Your task to perform on an android device: What's the news in Puerto Rico? Image 0: 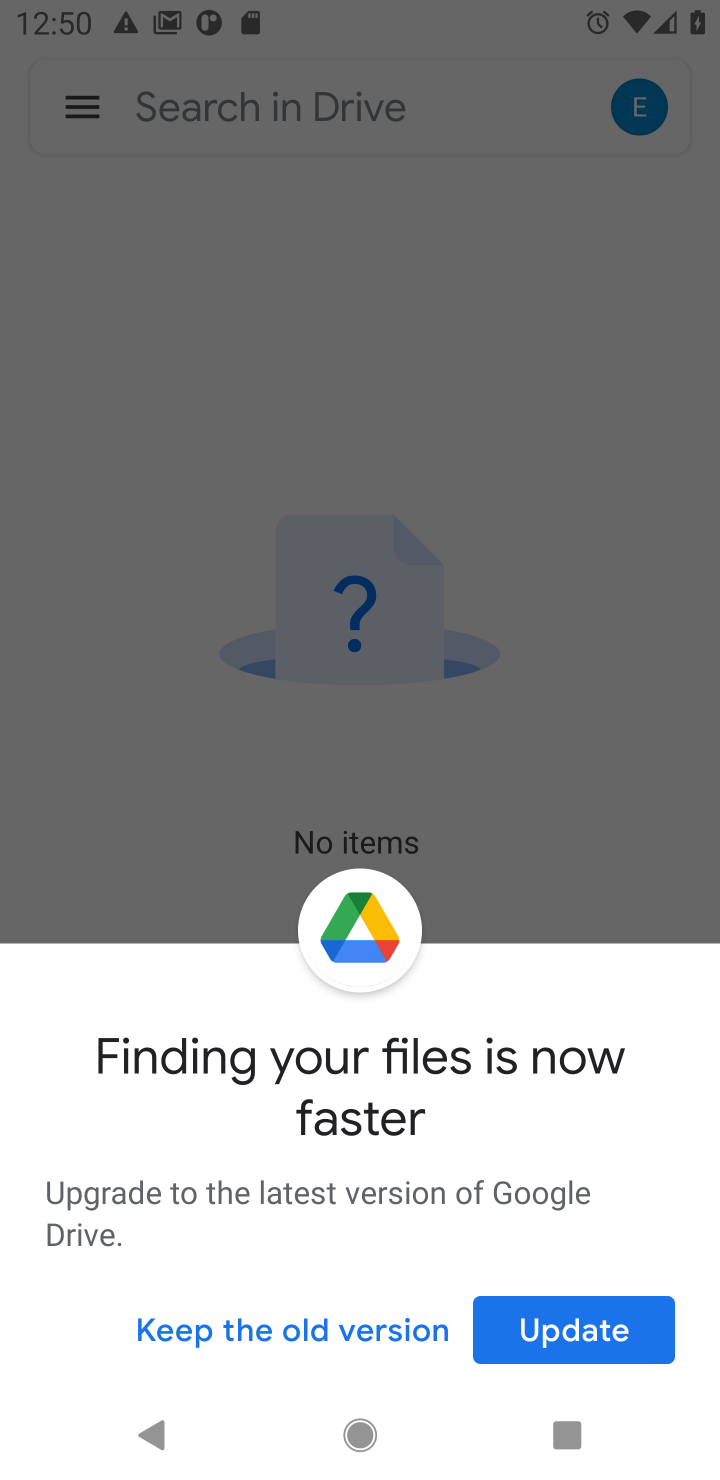
Step 0: press home button
Your task to perform on an android device: What's the news in Puerto Rico? Image 1: 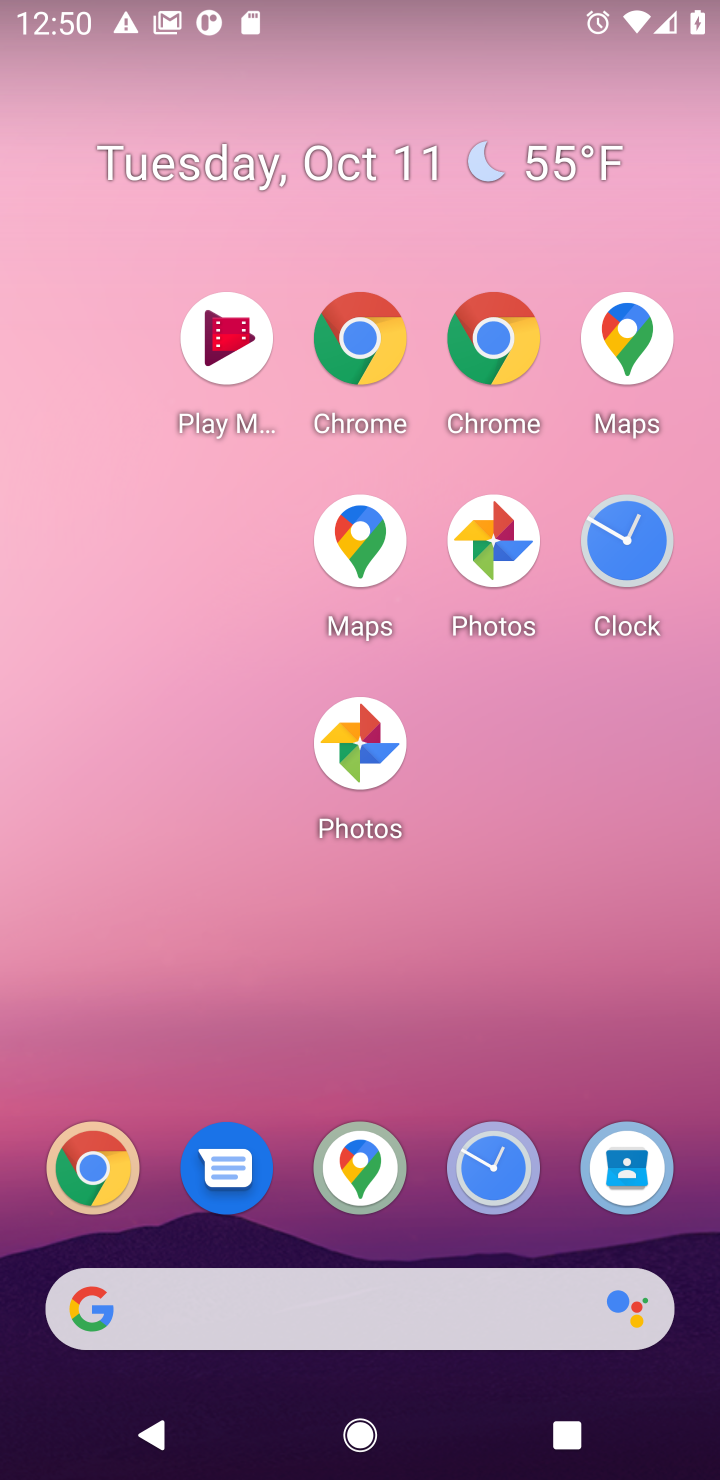
Step 1: drag from (427, 985) to (558, 456)
Your task to perform on an android device: What's the news in Puerto Rico? Image 2: 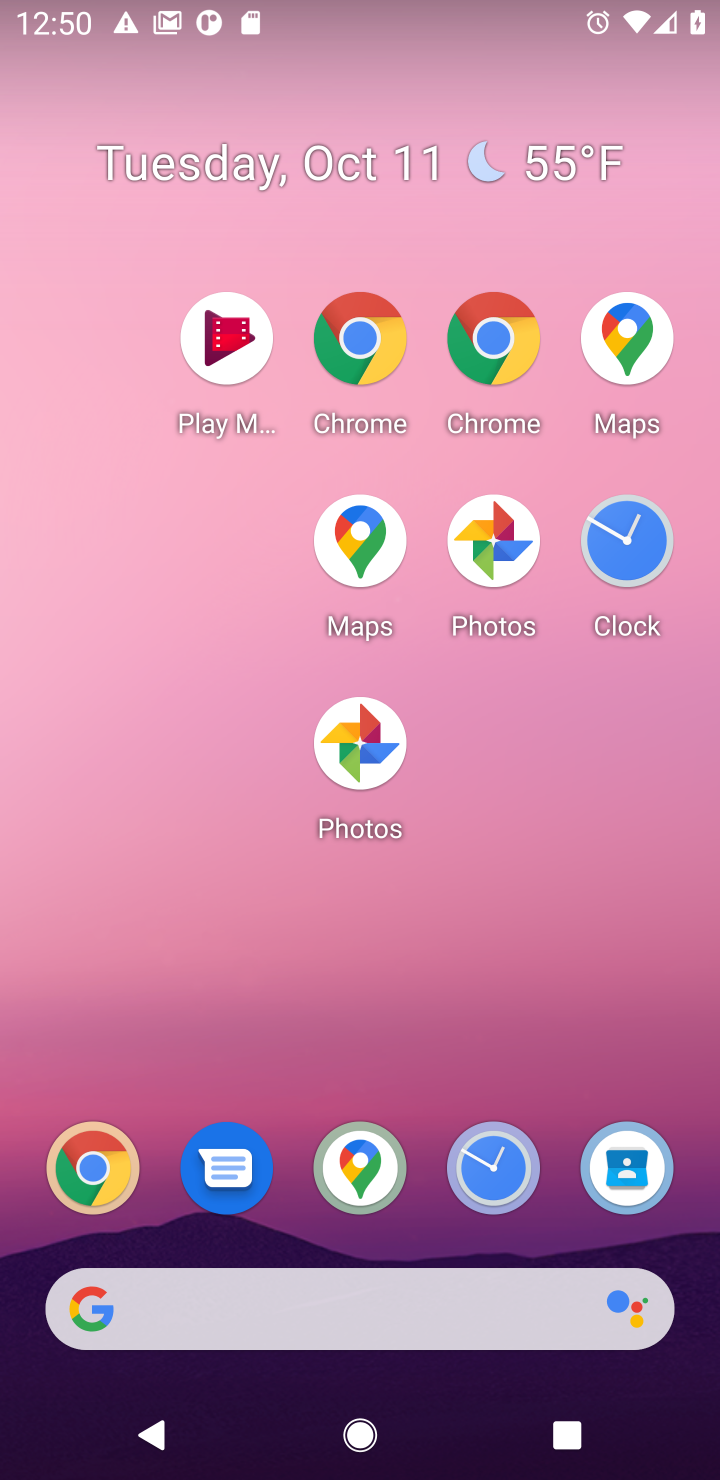
Step 2: drag from (464, 203) to (552, 4)
Your task to perform on an android device: What's the news in Puerto Rico? Image 3: 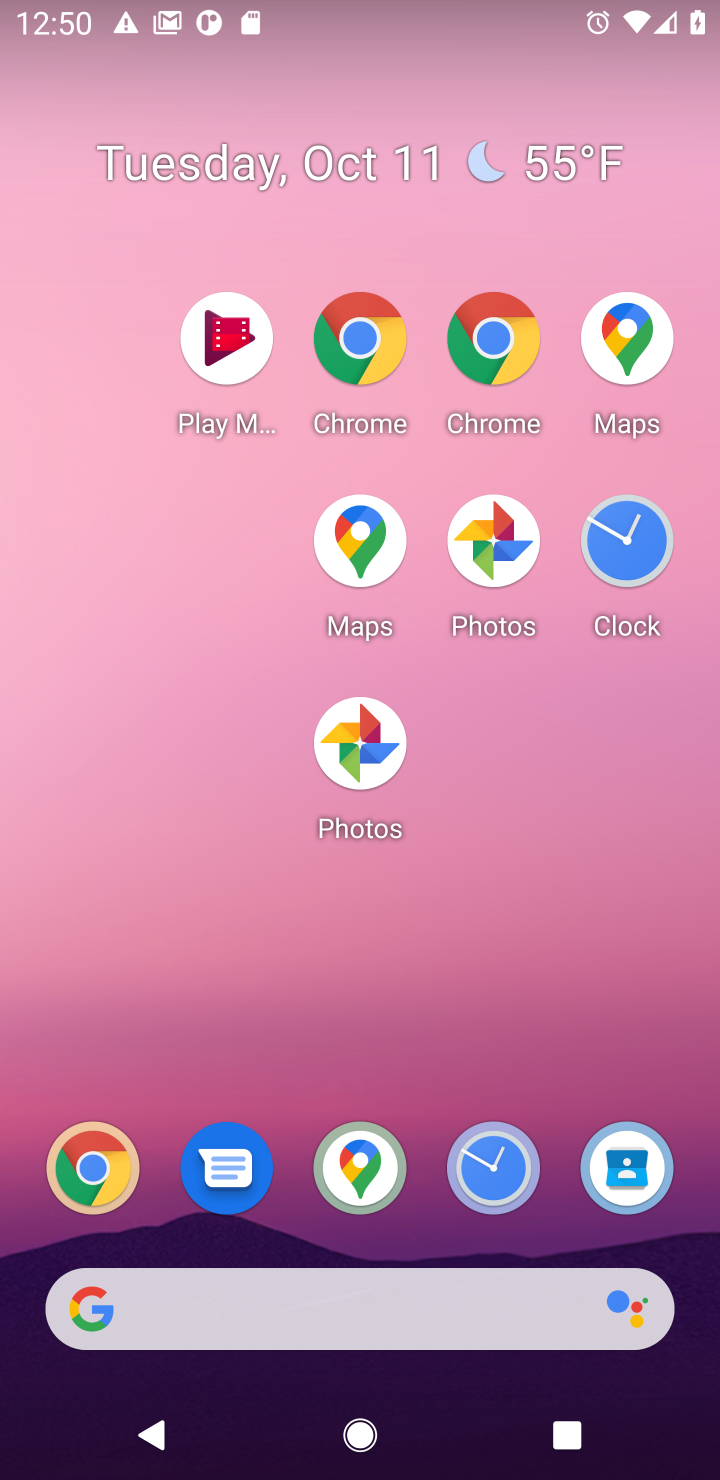
Step 3: drag from (398, 1082) to (489, 327)
Your task to perform on an android device: What's the news in Puerto Rico? Image 4: 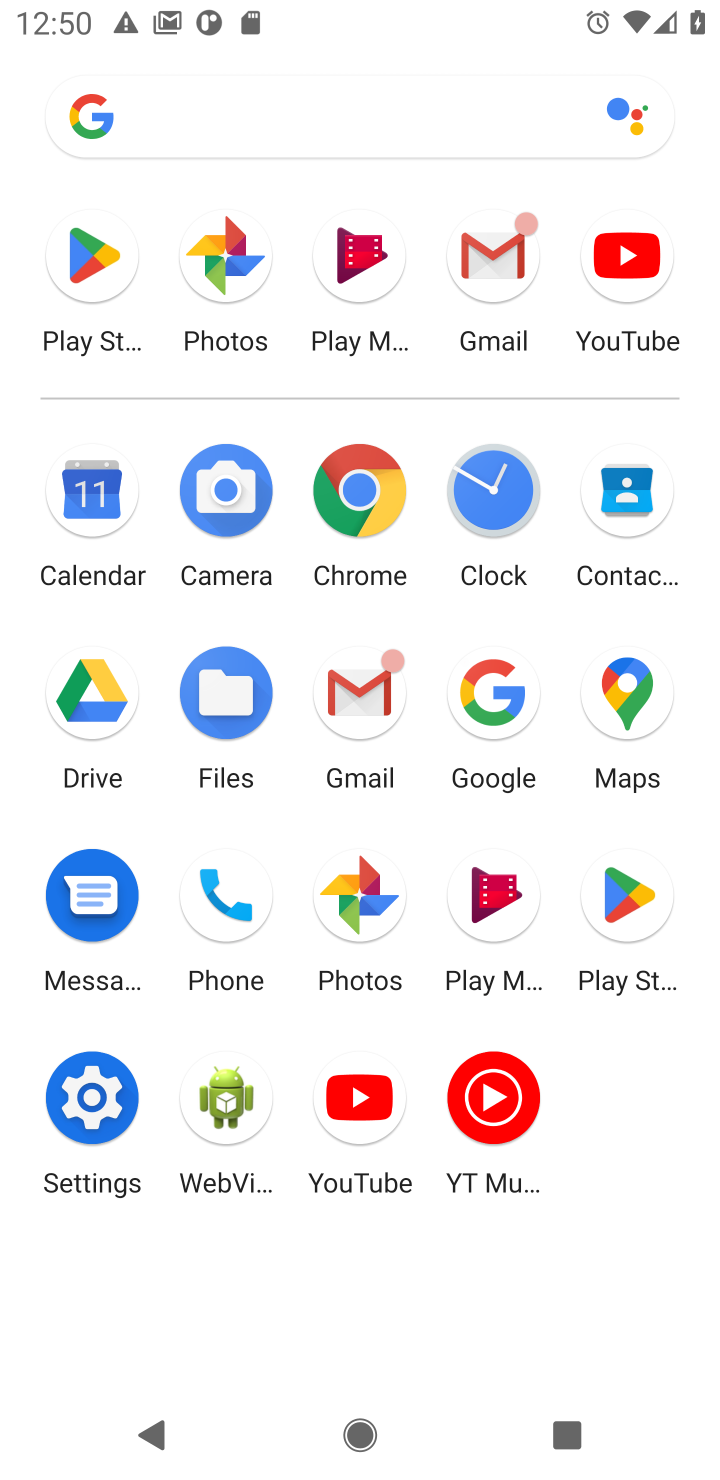
Step 4: click (494, 680)
Your task to perform on an android device: What's the news in Puerto Rico? Image 5: 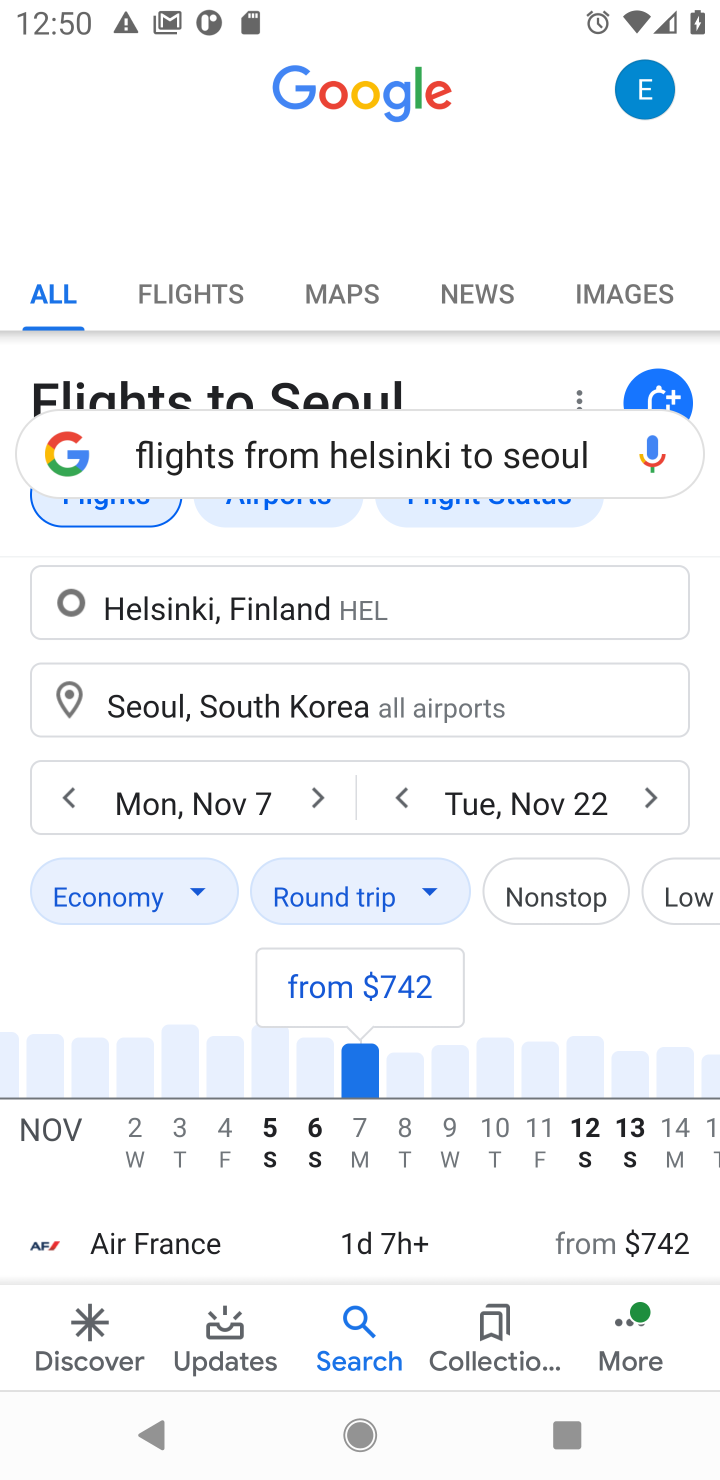
Step 5: click (474, 457)
Your task to perform on an android device: What's the news in Puerto Rico? Image 6: 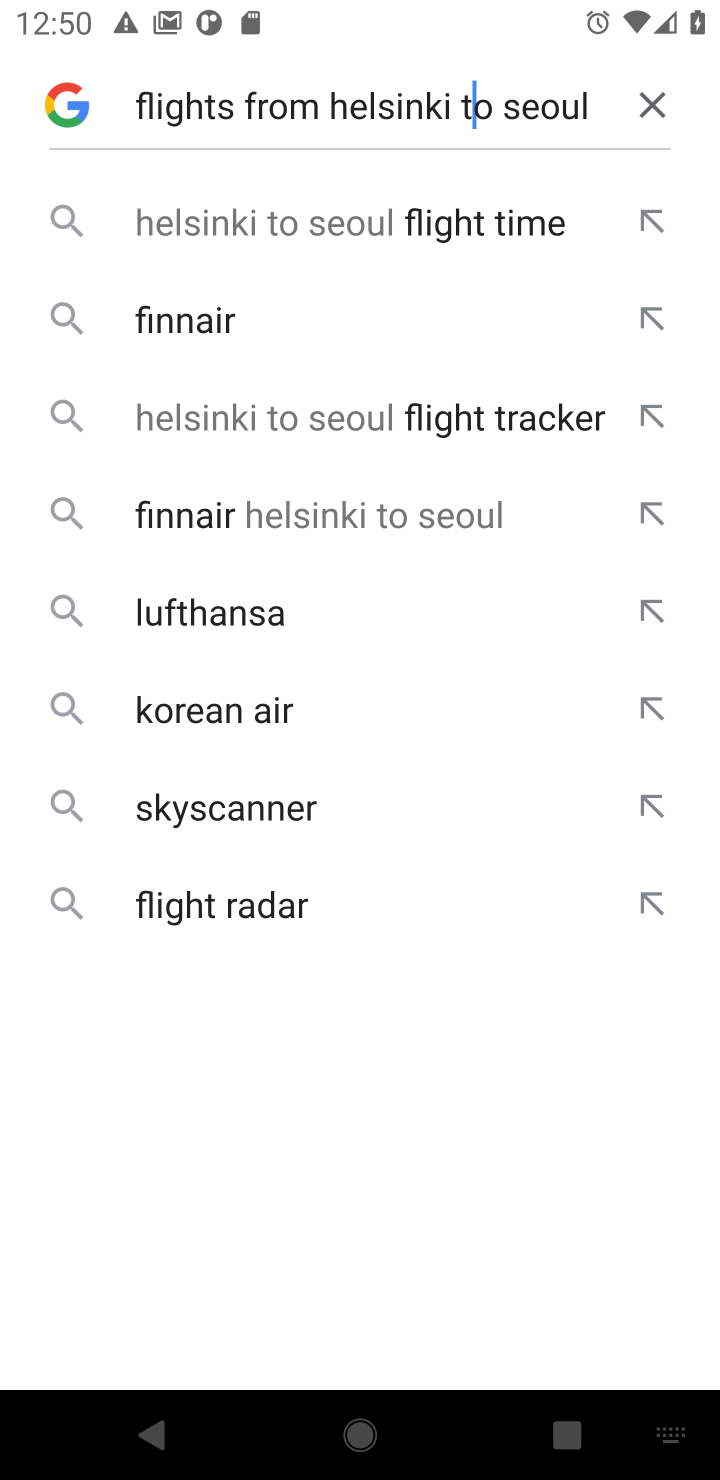
Step 6: click (656, 113)
Your task to perform on an android device: What's the news in Puerto Rico? Image 7: 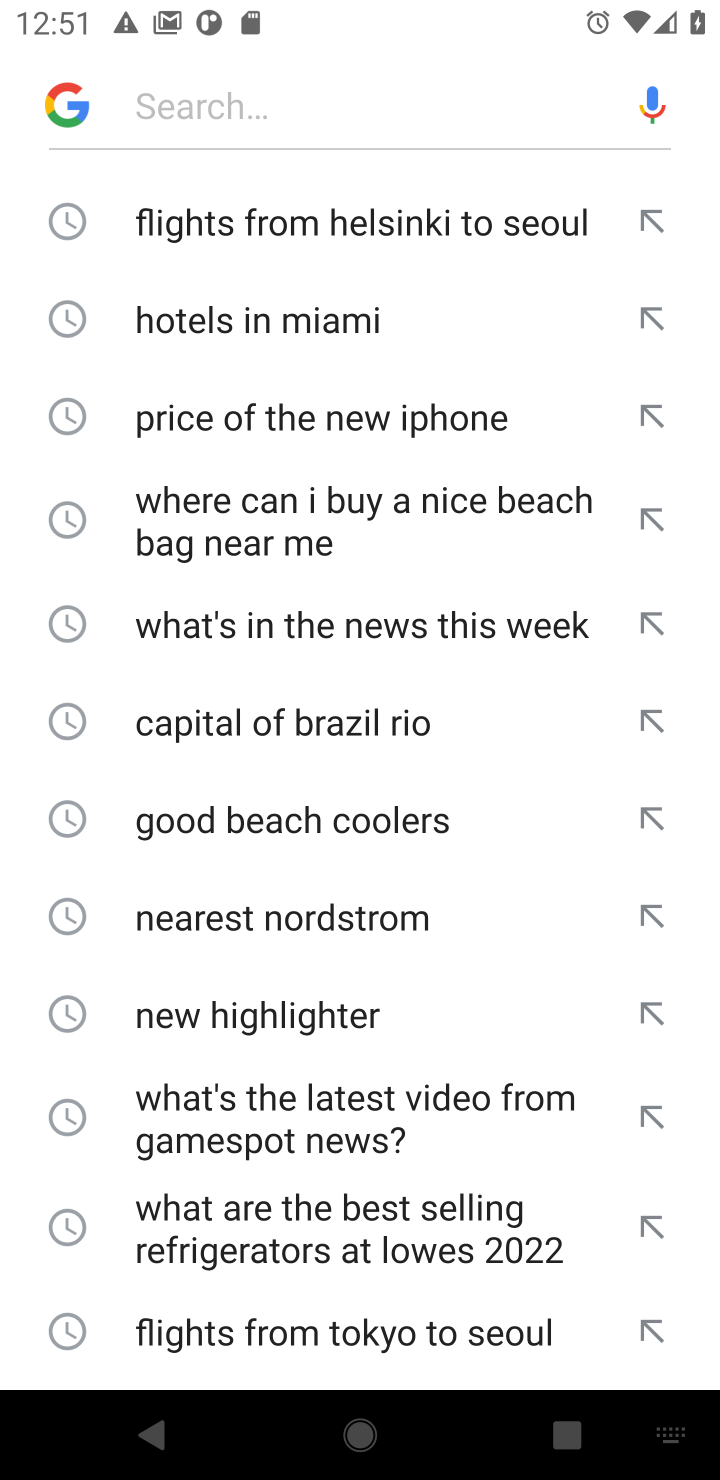
Step 7: type "news in Puerto Rico"
Your task to perform on an android device: What's the news in Puerto Rico? Image 8: 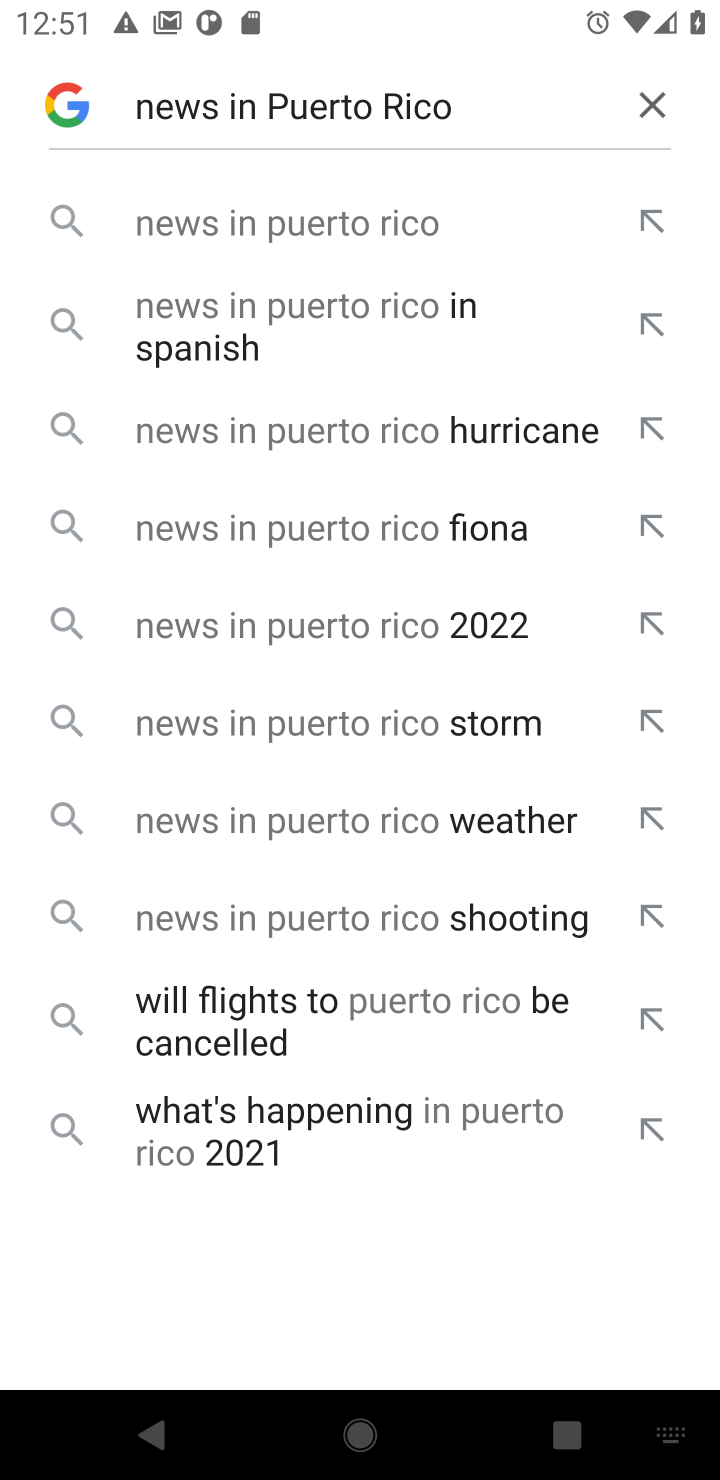
Step 8: click (331, 229)
Your task to perform on an android device: What's the news in Puerto Rico? Image 9: 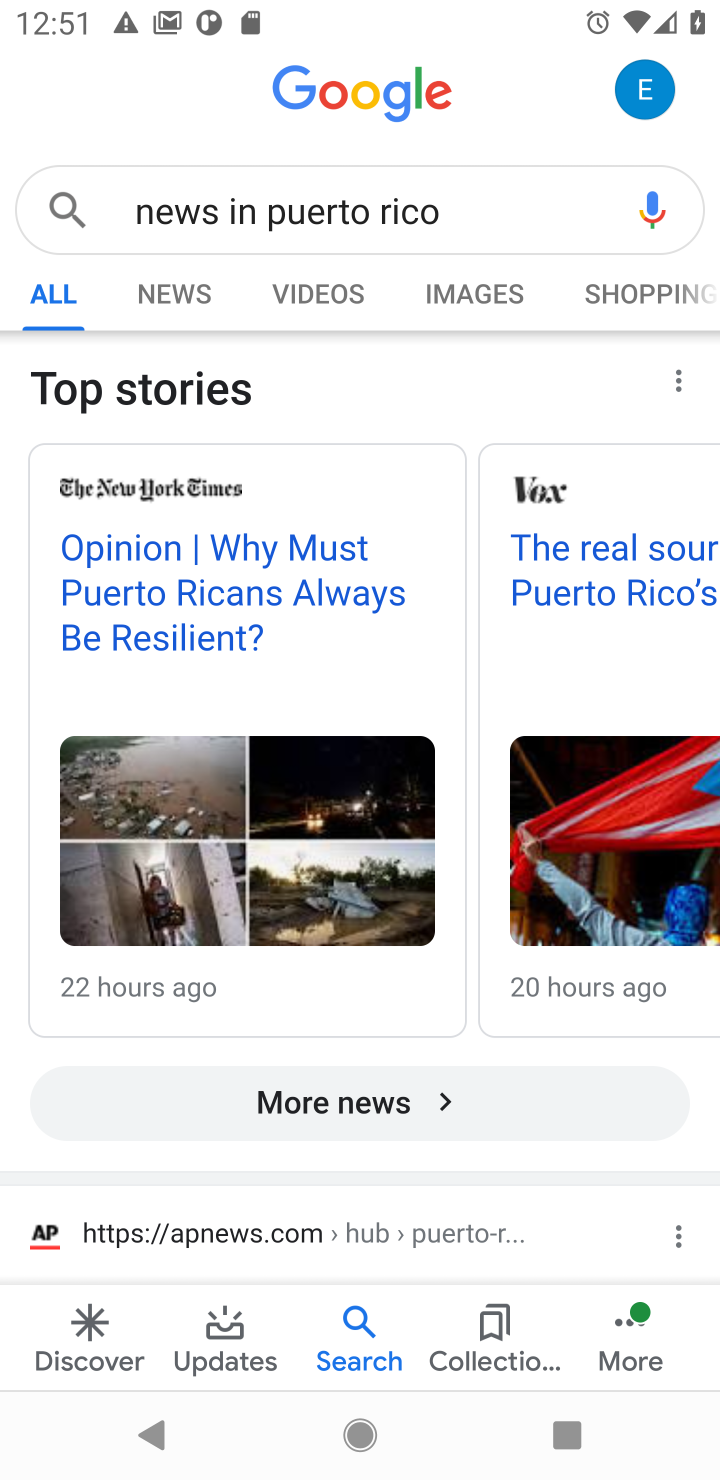
Step 9: click (195, 305)
Your task to perform on an android device: What's the news in Puerto Rico? Image 10: 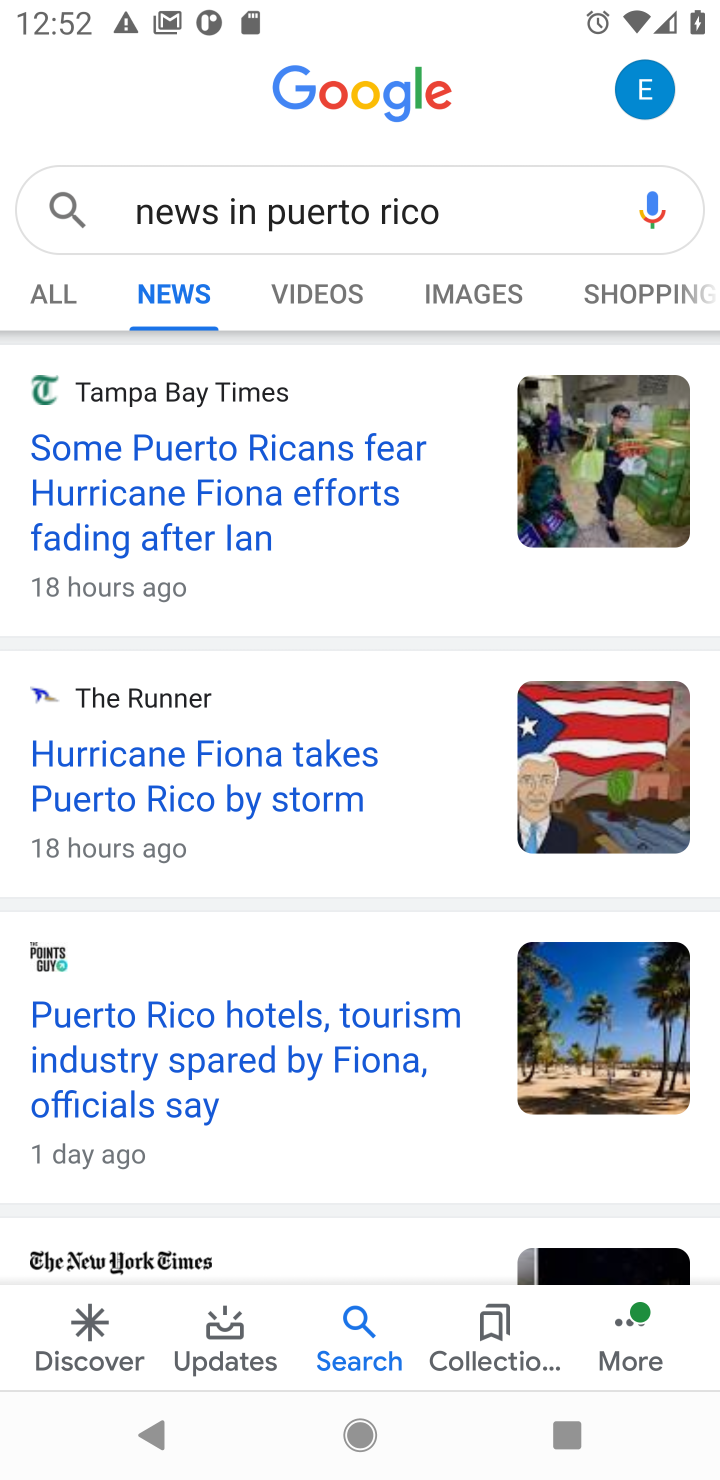
Step 10: task complete